Your task to perform on an android device: Show me popular videos on Youtube Image 0: 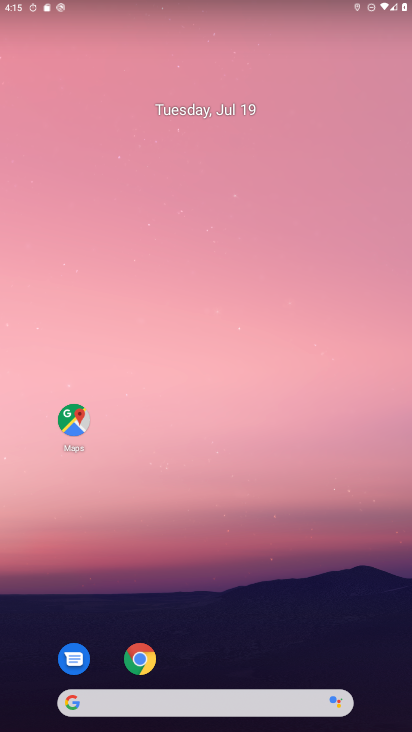
Step 0: drag from (283, 615) to (278, 26)
Your task to perform on an android device: Show me popular videos on Youtube Image 1: 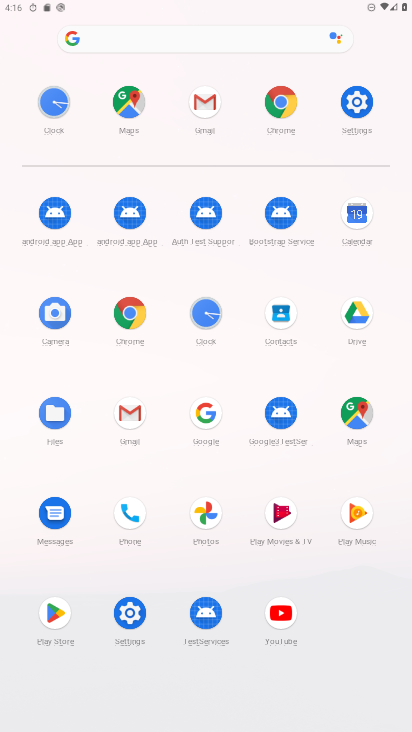
Step 1: click (289, 619)
Your task to perform on an android device: Show me popular videos on Youtube Image 2: 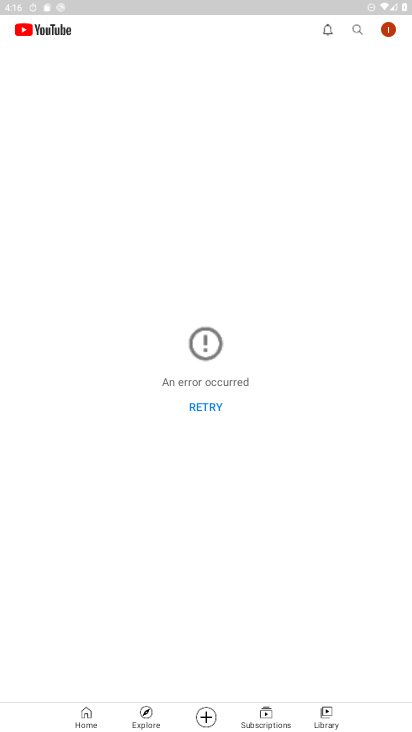
Step 2: click (385, 35)
Your task to perform on an android device: Show me popular videos on Youtube Image 3: 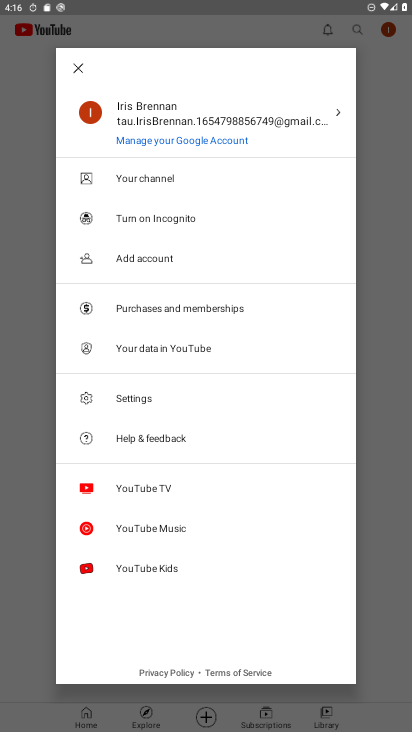
Step 3: click (78, 75)
Your task to perform on an android device: Show me popular videos on Youtube Image 4: 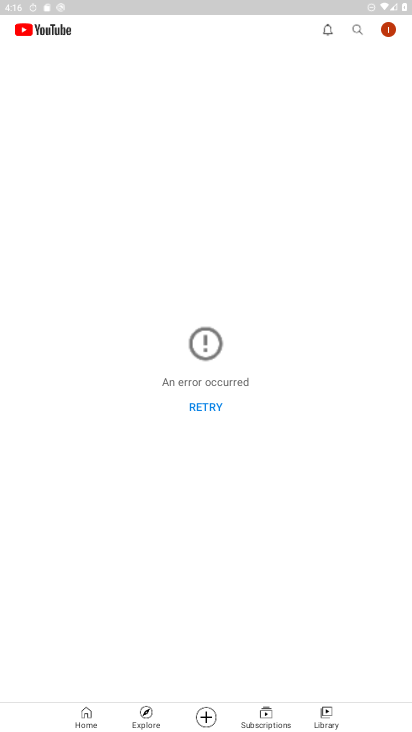
Step 4: click (356, 26)
Your task to perform on an android device: Show me popular videos on Youtube Image 5: 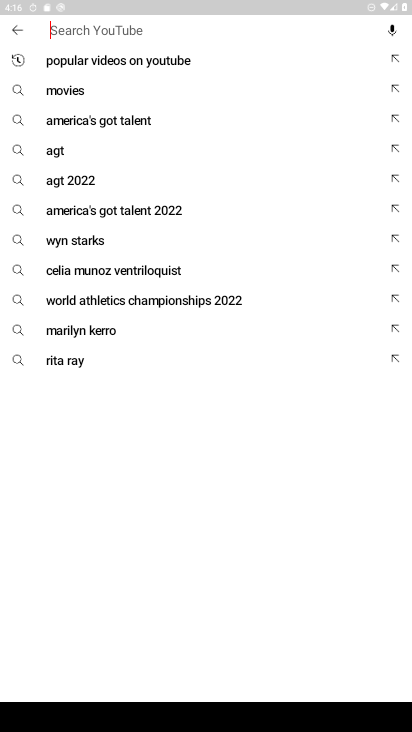
Step 5: click (161, 63)
Your task to perform on an android device: Show me popular videos on Youtube Image 6: 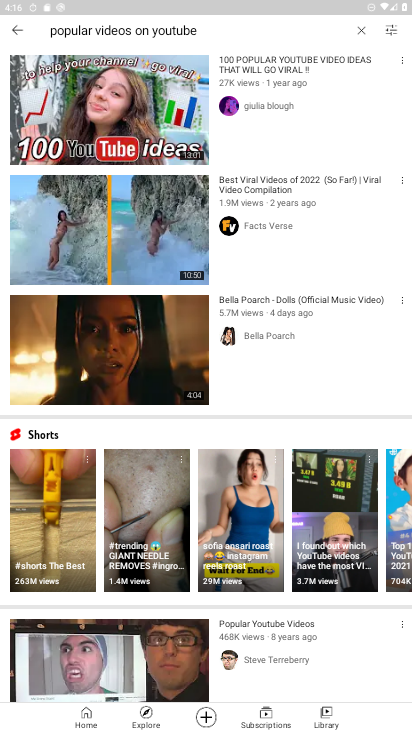
Step 6: task complete